Your task to perform on an android device: all mails in gmail Image 0: 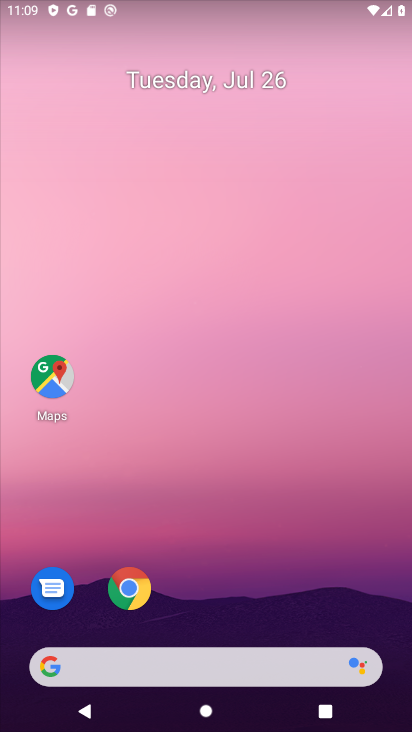
Step 0: press home button
Your task to perform on an android device: all mails in gmail Image 1: 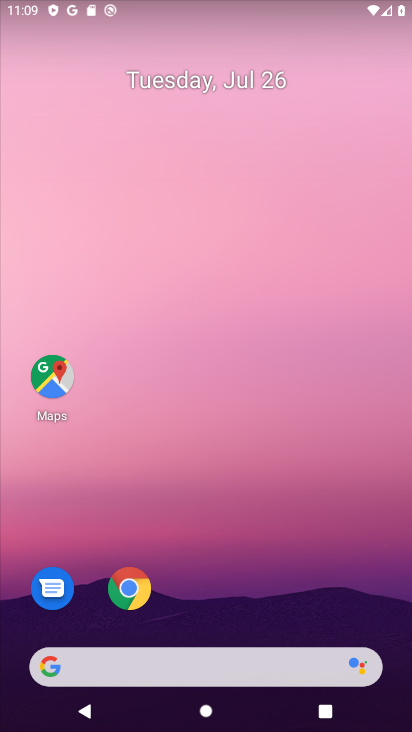
Step 1: drag from (215, 618) to (213, 11)
Your task to perform on an android device: all mails in gmail Image 2: 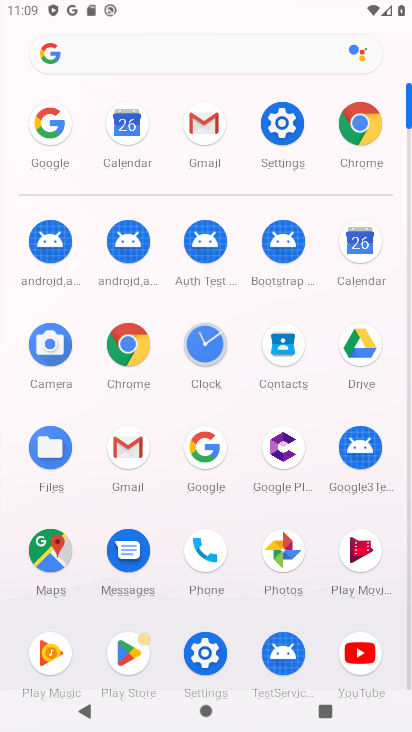
Step 2: click (198, 117)
Your task to perform on an android device: all mails in gmail Image 3: 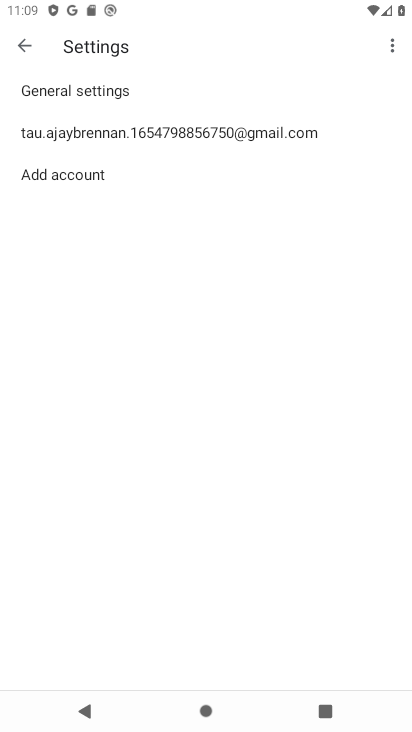
Step 3: click (31, 40)
Your task to perform on an android device: all mails in gmail Image 4: 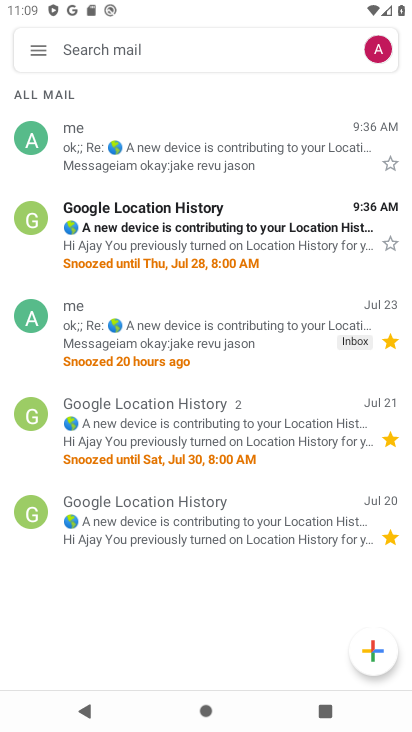
Step 4: task complete